Your task to perform on an android device: delete browsing data in the chrome app Image 0: 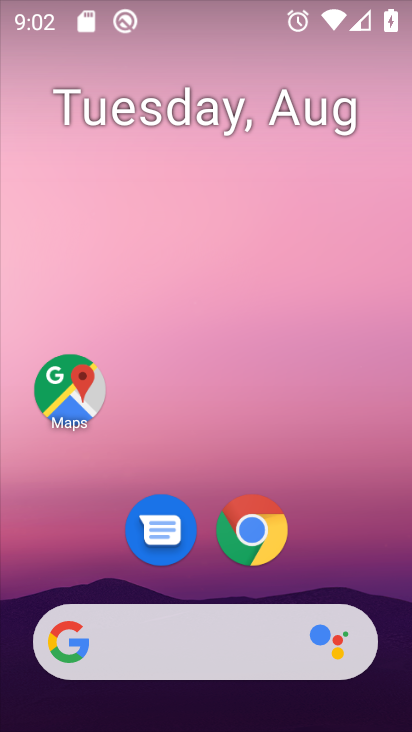
Step 0: drag from (334, 476) to (303, 71)
Your task to perform on an android device: delete browsing data in the chrome app Image 1: 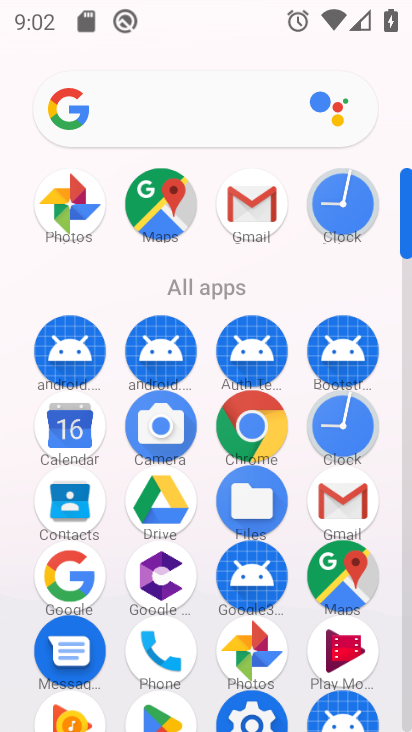
Step 1: click (253, 421)
Your task to perform on an android device: delete browsing data in the chrome app Image 2: 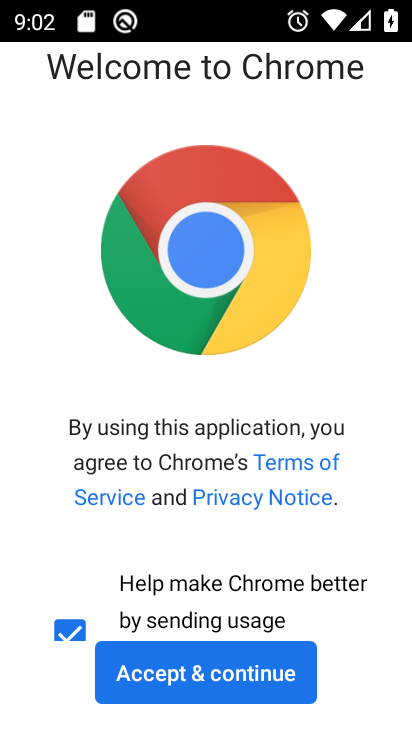
Step 2: click (217, 662)
Your task to perform on an android device: delete browsing data in the chrome app Image 3: 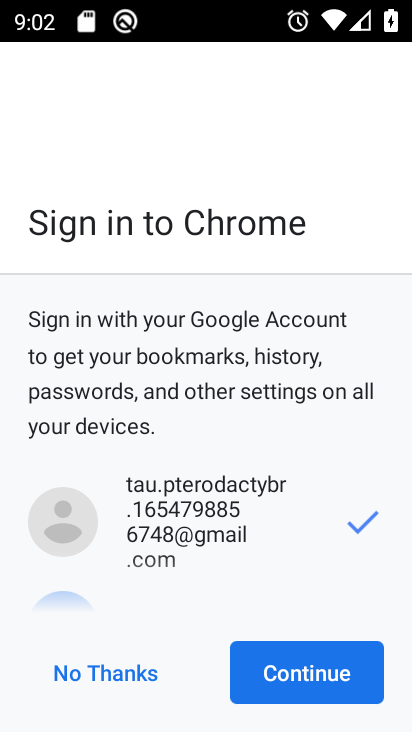
Step 3: click (255, 671)
Your task to perform on an android device: delete browsing data in the chrome app Image 4: 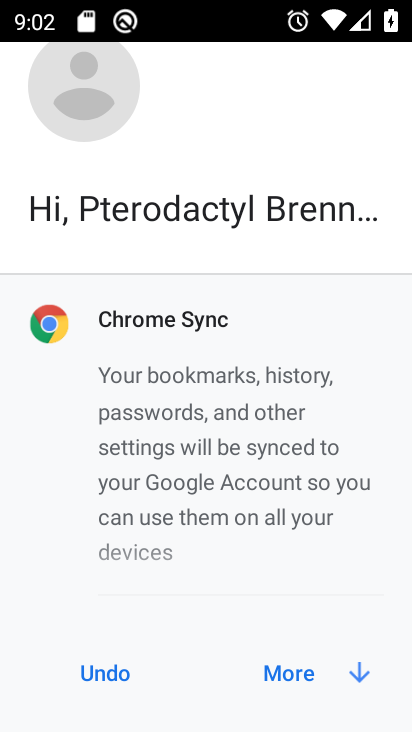
Step 4: click (292, 671)
Your task to perform on an android device: delete browsing data in the chrome app Image 5: 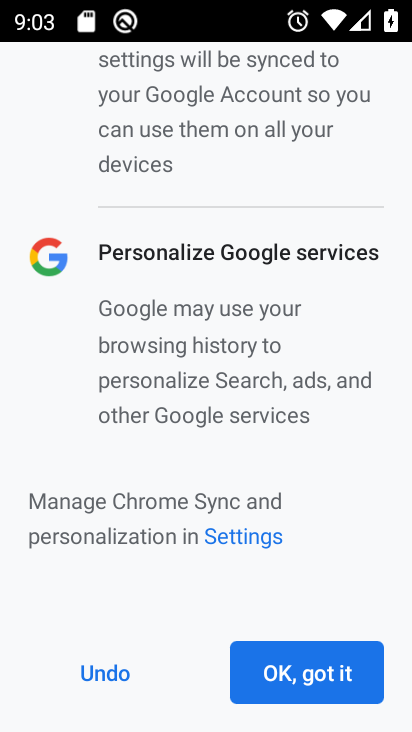
Step 5: click (278, 673)
Your task to perform on an android device: delete browsing data in the chrome app Image 6: 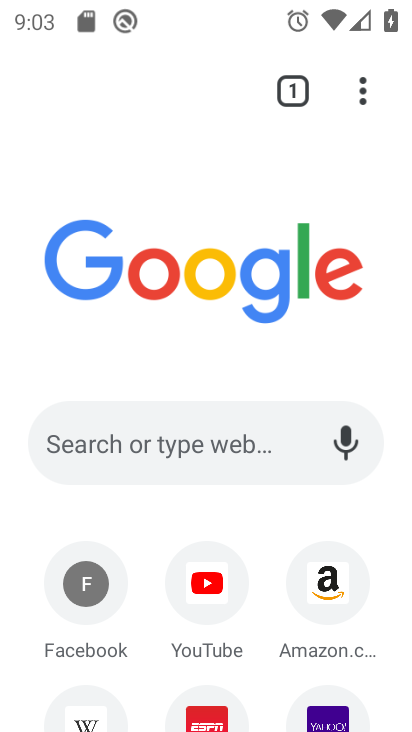
Step 6: task complete